Your task to perform on an android device: Go to calendar. Show me events next week Image 0: 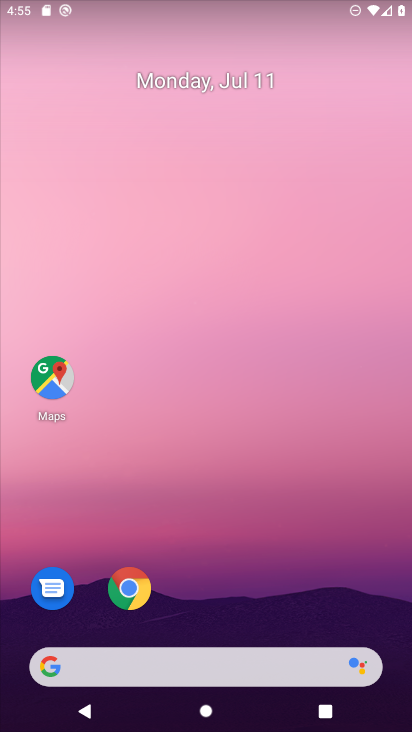
Step 0: press home button
Your task to perform on an android device: Go to calendar. Show me events next week Image 1: 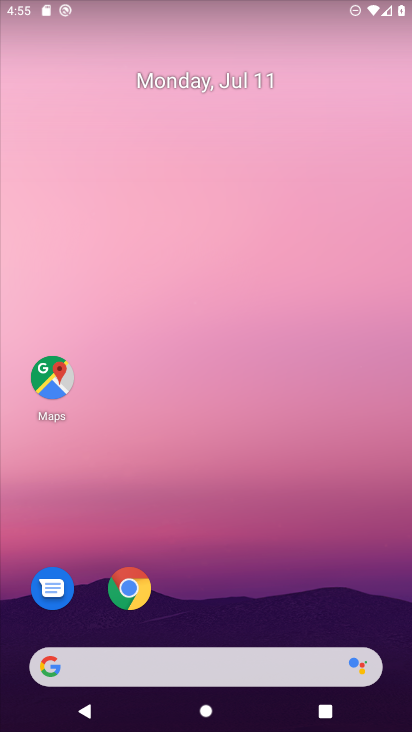
Step 1: drag from (220, 591) to (160, 59)
Your task to perform on an android device: Go to calendar. Show me events next week Image 2: 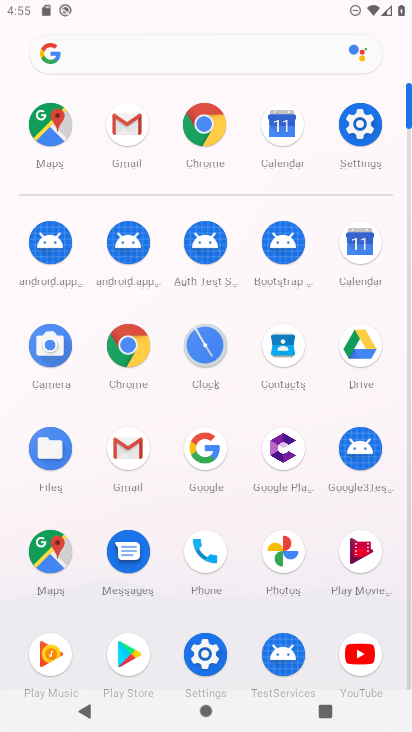
Step 2: click (362, 244)
Your task to perform on an android device: Go to calendar. Show me events next week Image 3: 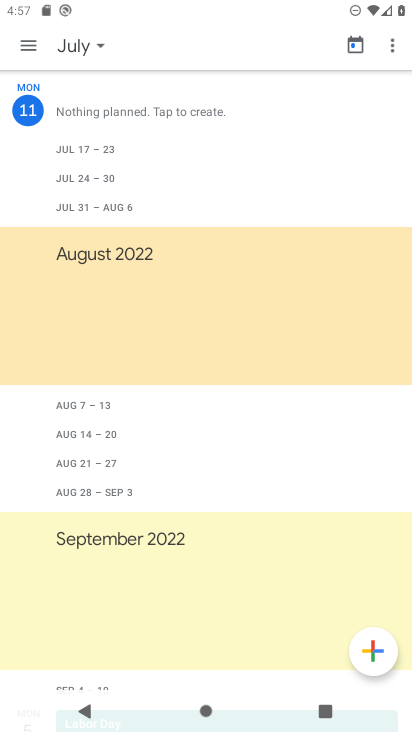
Step 3: task complete